Your task to perform on an android device: turn on location history Image 0: 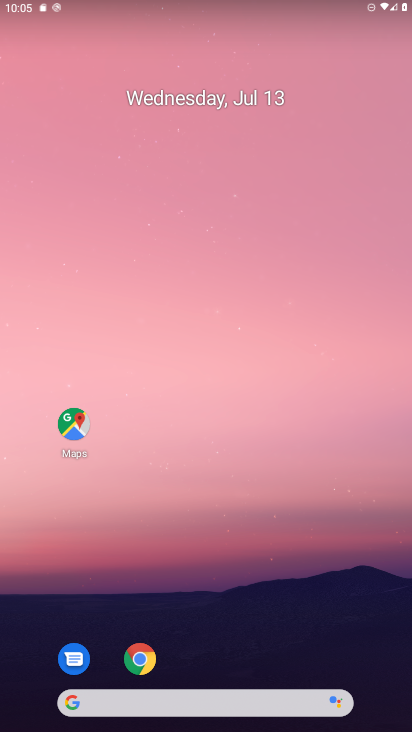
Step 0: drag from (206, 703) to (172, 220)
Your task to perform on an android device: turn on location history Image 1: 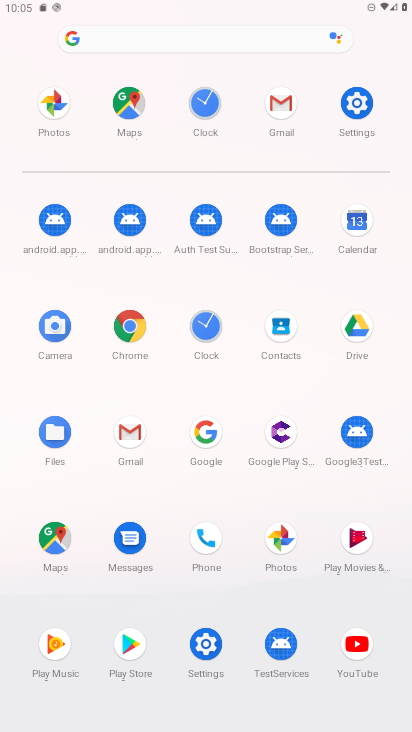
Step 1: click (195, 632)
Your task to perform on an android device: turn on location history Image 2: 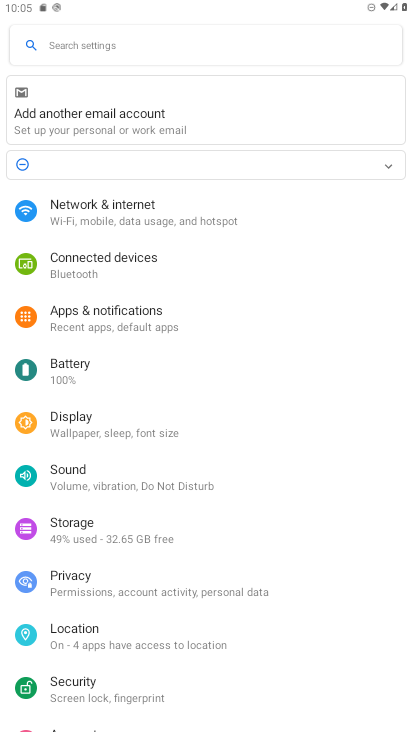
Step 2: click (106, 634)
Your task to perform on an android device: turn on location history Image 3: 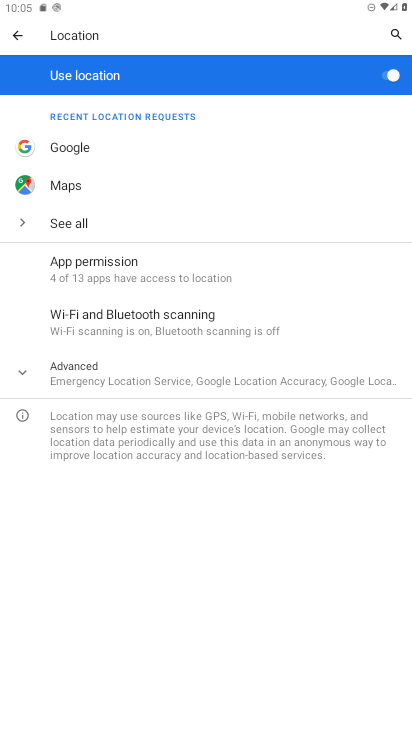
Step 3: click (94, 379)
Your task to perform on an android device: turn on location history Image 4: 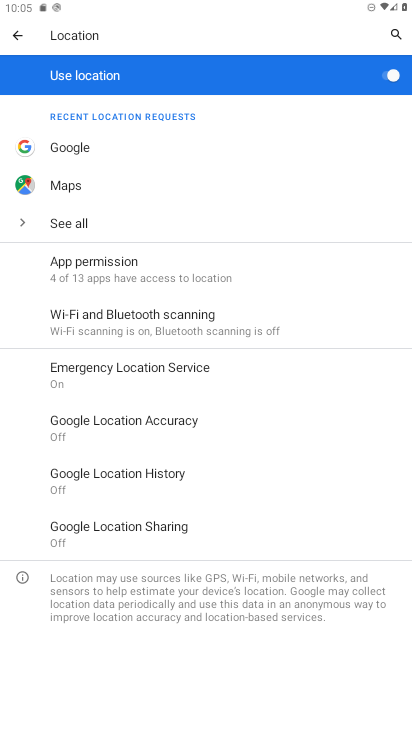
Step 4: click (200, 479)
Your task to perform on an android device: turn on location history Image 5: 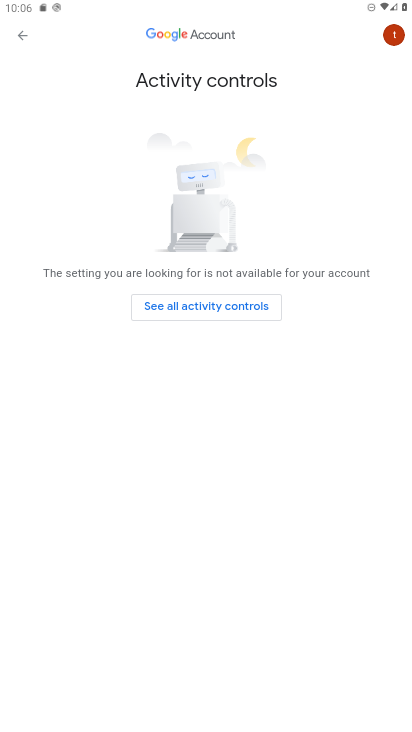
Step 5: task complete